Your task to perform on an android device: What's on my calendar tomorrow? Image 0: 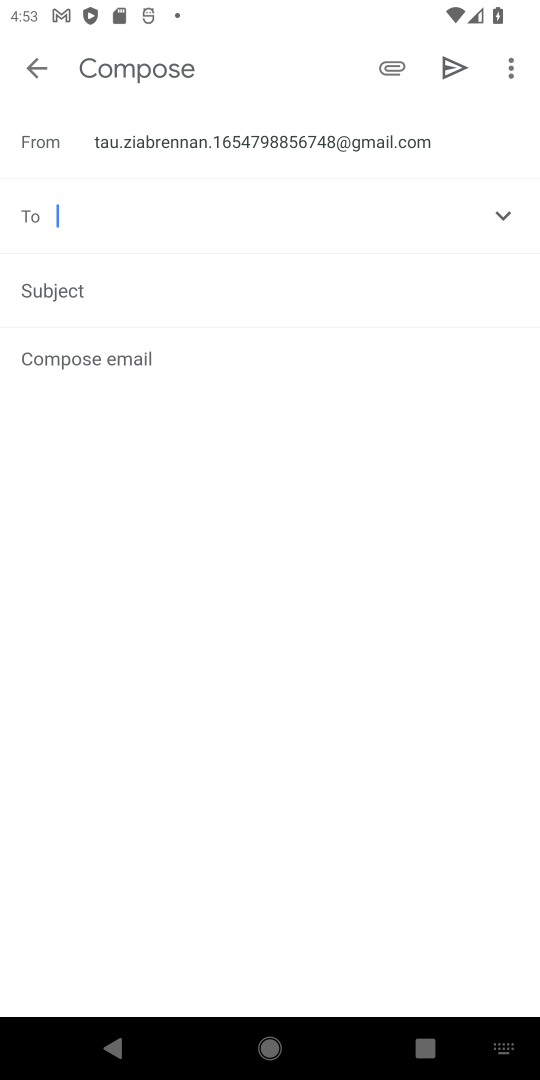
Step 0: press home button
Your task to perform on an android device: What's on my calendar tomorrow? Image 1: 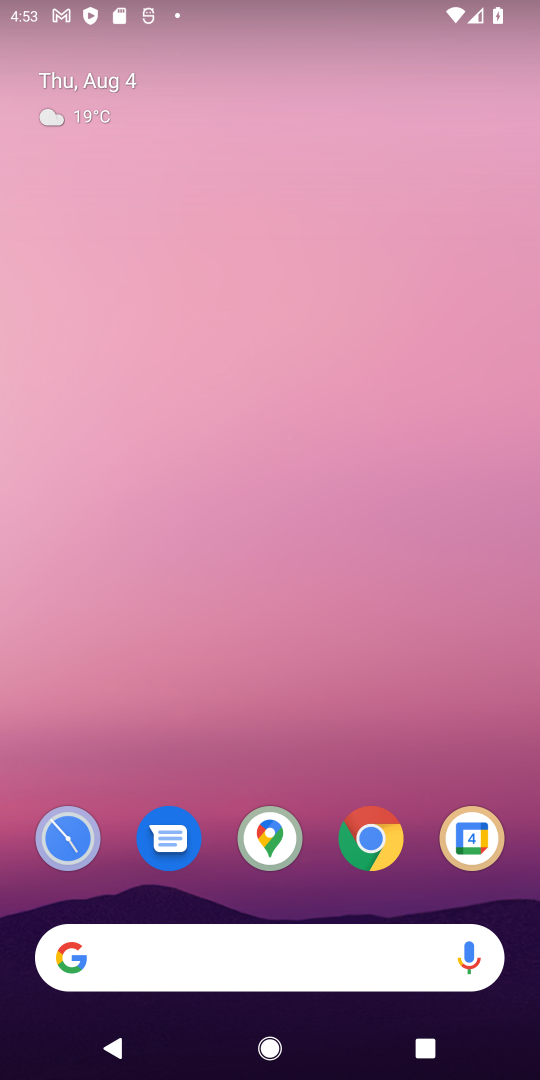
Step 1: drag from (271, 865) to (499, 26)
Your task to perform on an android device: What's on my calendar tomorrow? Image 2: 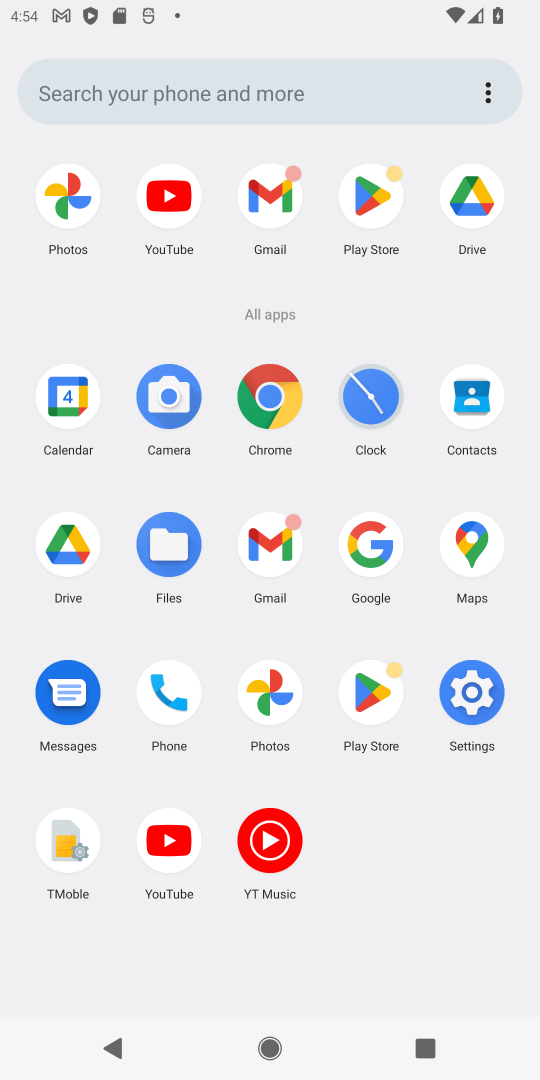
Step 2: click (48, 404)
Your task to perform on an android device: What's on my calendar tomorrow? Image 3: 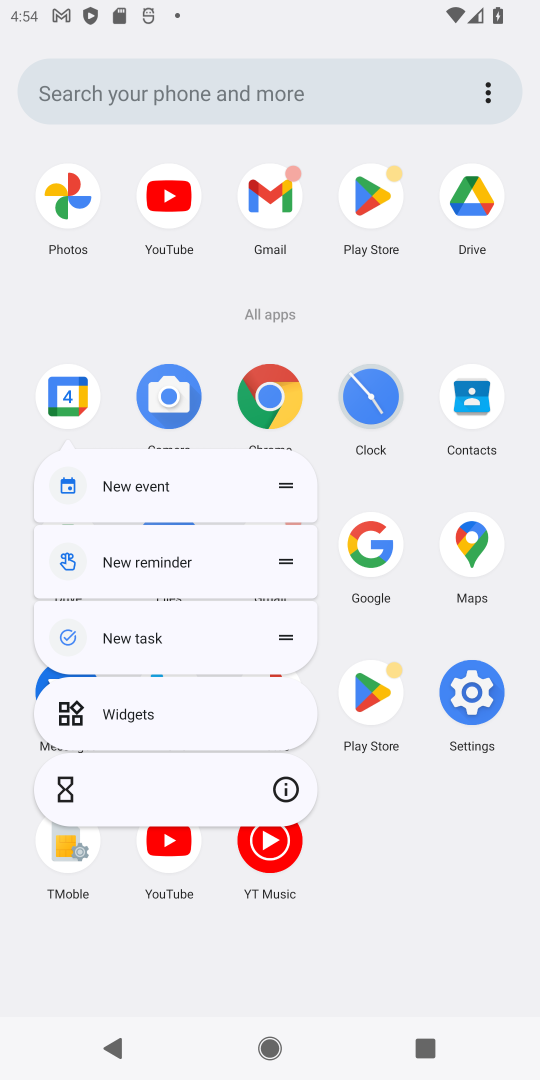
Step 3: click (53, 399)
Your task to perform on an android device: What's on my calendar tomorrow? Image 4: 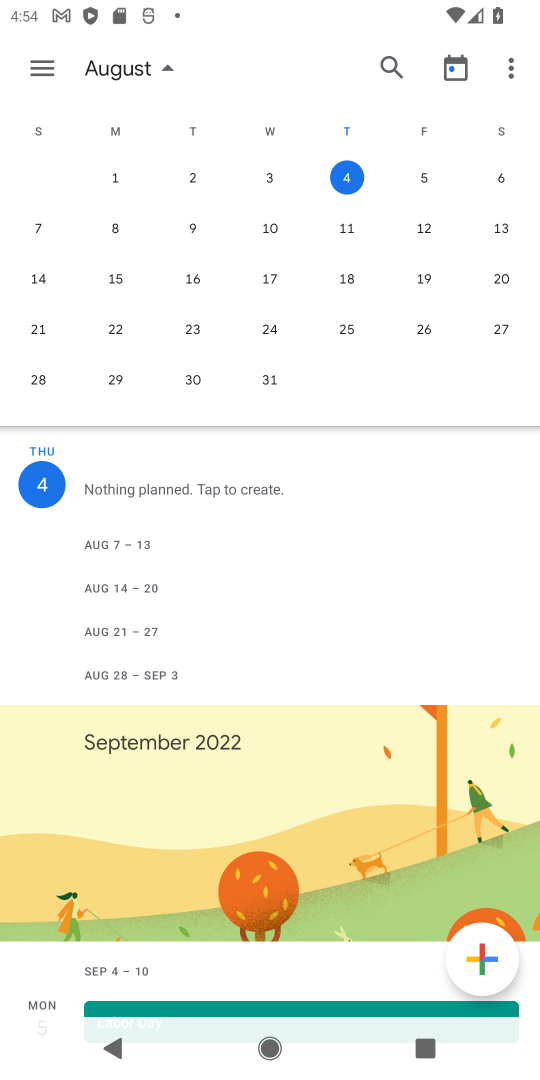
Step 4: click (430, 178)
Your task to perform on an android device: What's on my calendar tomorrow? Image 5: 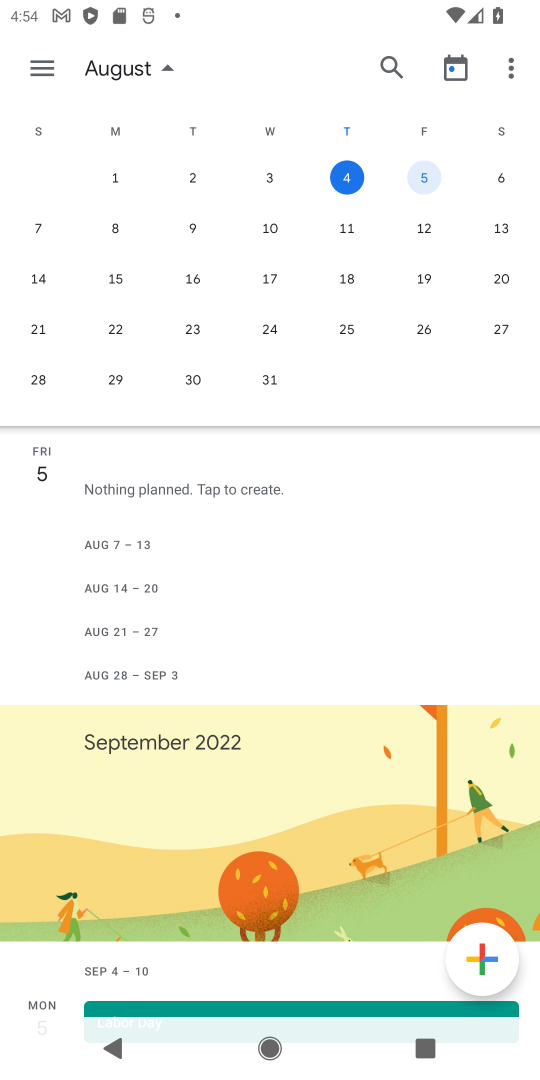
Step 5: task complete